Your task to perform on an android device: turn on improve location accuracy Image 0: 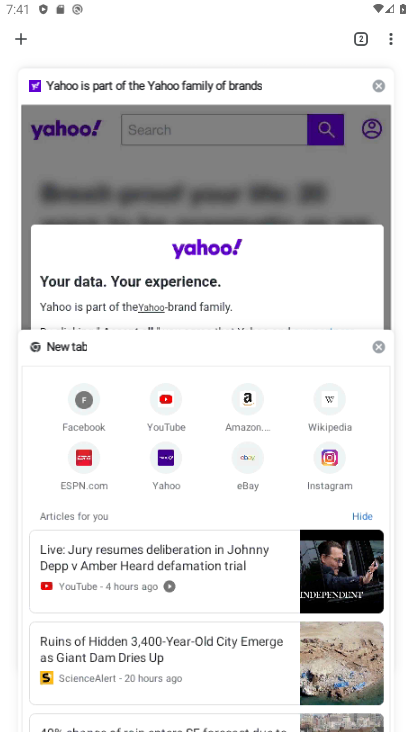
Step 0: press home button
Your task to perform on an android device: turn on improve location accuracy Image 1: 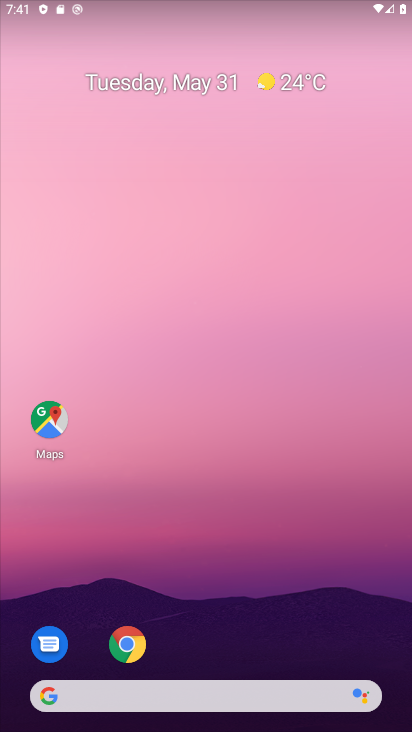
Step 1: drag from (309, 593) to (296, 190)
Your task to perform on an android device: turn on improve location accuracy Image 2: 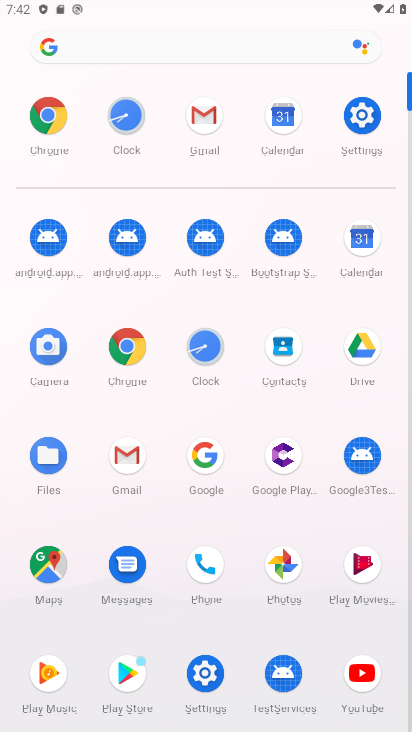
Step 2: click (218, 667)
Your task to perform on an android device: turn on improve location accuracy Image 3: 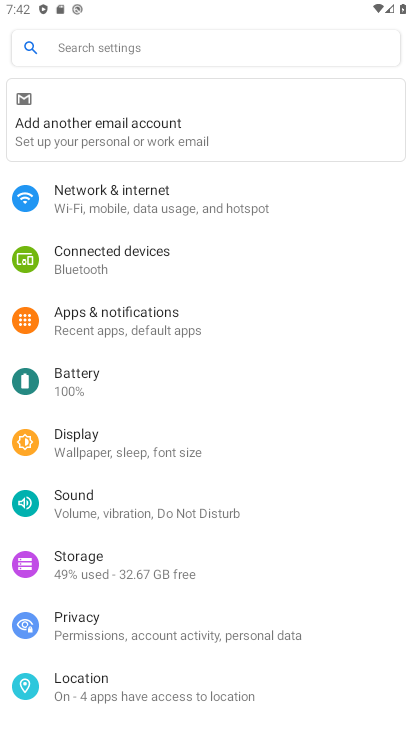
Step 3: click (204, 684)
Your task to perform on an android device: turn on improve location accuracy Image 4: 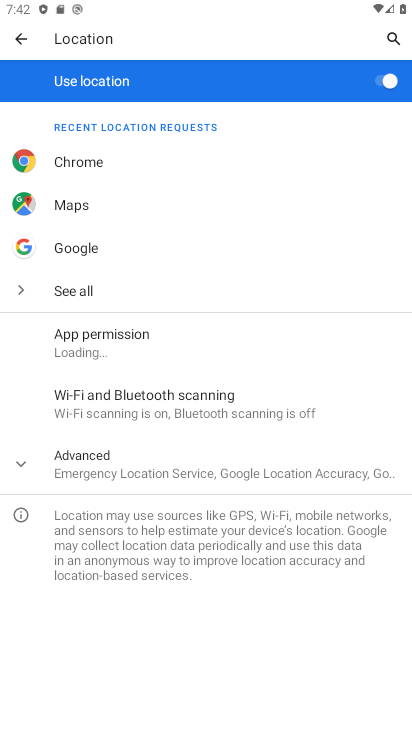
Step 4: click (151, 472)
Your task to perform on an android device: turn on improve location accuracy Image 5: 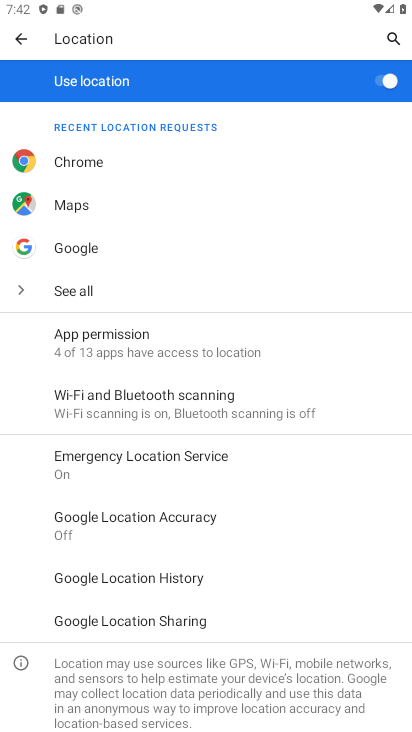
Step 5: click (207, 509)
Your task to perform on an android device: turn on improve location accuracy Image 6: 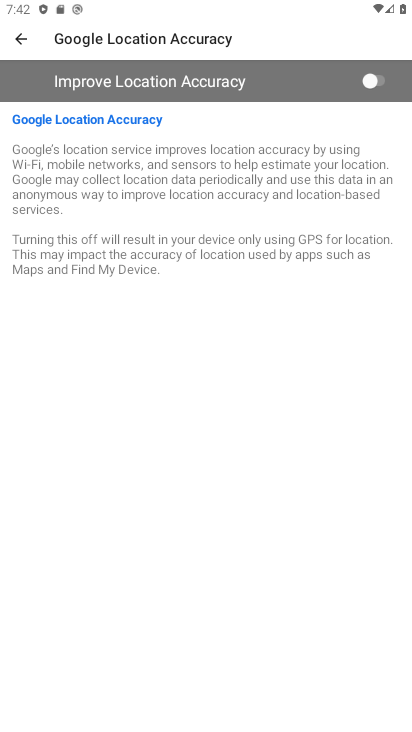
Step 6: click (379, 78)
Your task to perform on an android device: turn on improve location accuracy Image 7: 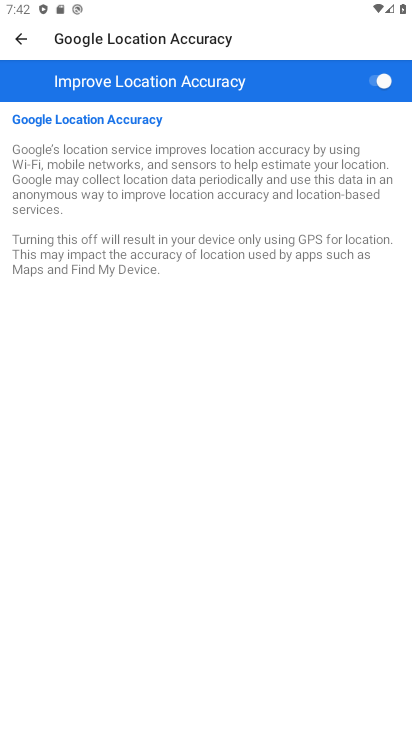
Step 7: task complete